Your task to perform on an android device: Check the weather Image 0: 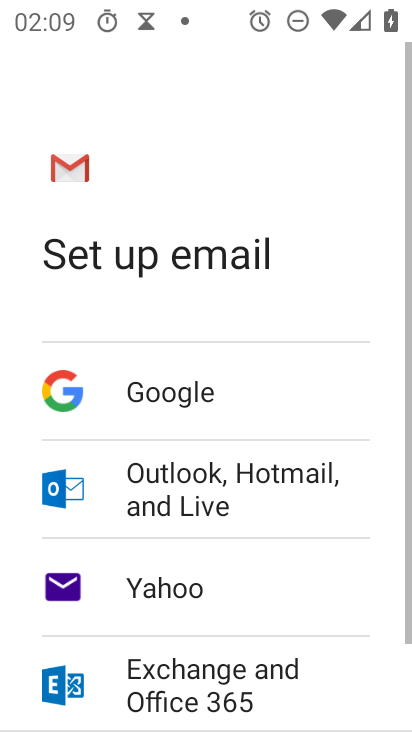
Step 0: press home button
Your task to perform on an android device: Check the weather Image 1: 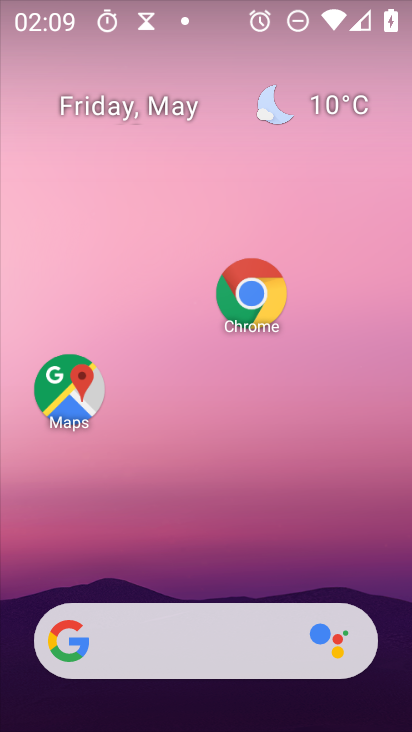
Step 1: click (344, 99)
Your task to perform on an android device: Check the weather Image 2: 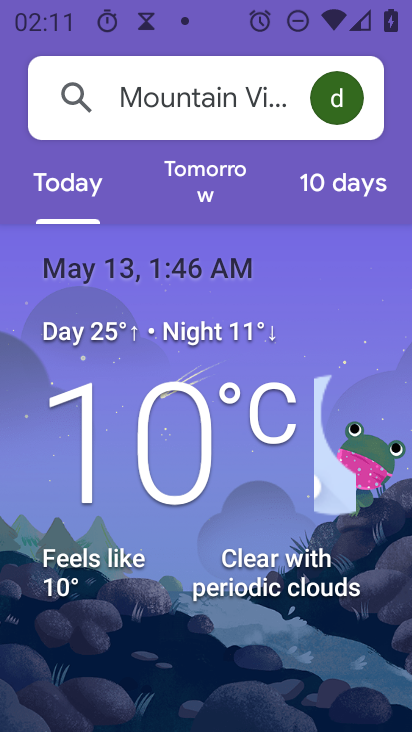
Step 2: task complete